Your task to perform on an android device: turn off priority inbox in the gmail app Image 0: 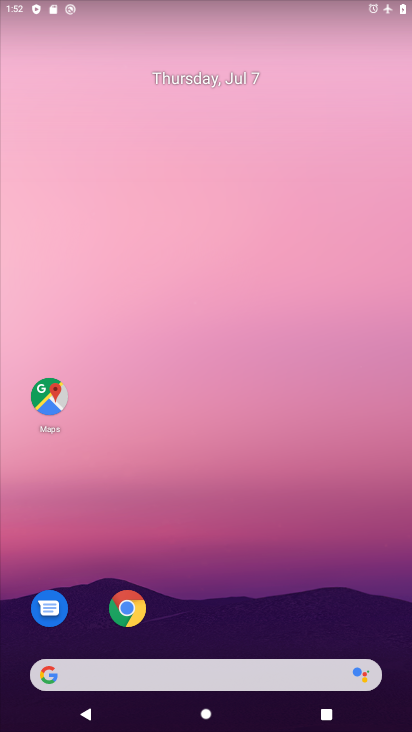
Step 0: click (248, 727)
Your task to perform on an android device: turn off priority inbox in the gmail app Image 1: 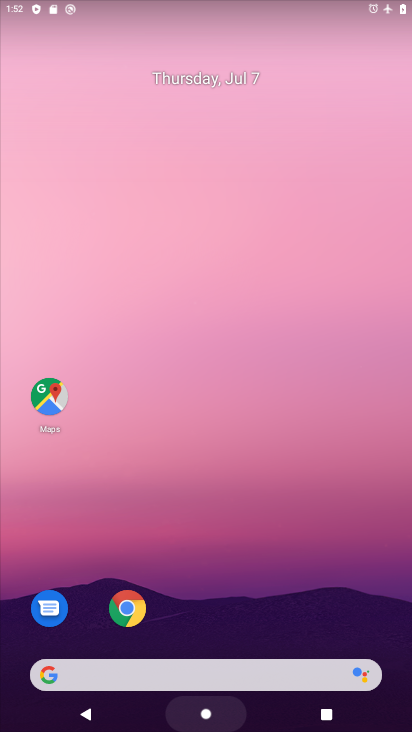
Step 1: drag from (241, 40) to (242, 2)
Your task to perform on an android device: turn off priority inbox in the gmail app Image 2: 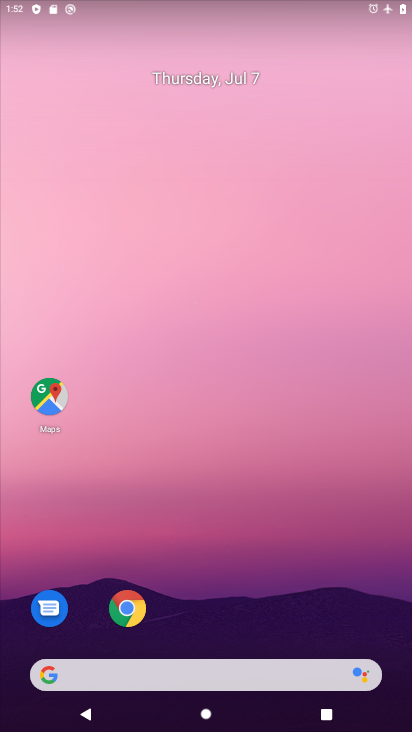
Step 2: drag from (282, 707) to (272, 630)
Your task to perform on an android device: turn off priority inbox in the gmail app Image 3: 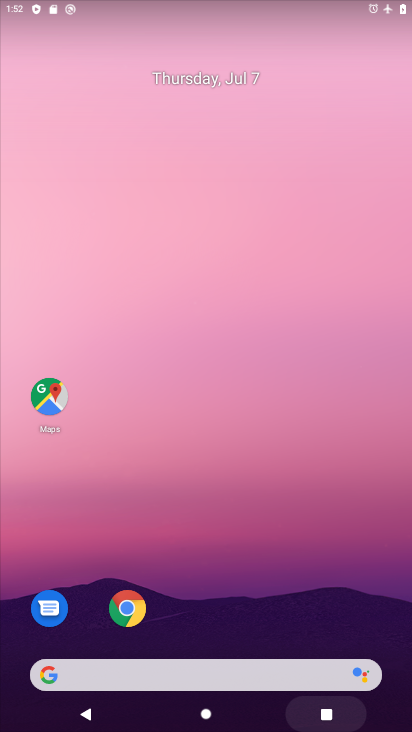
Step 3: click (238, 149)
Your task to perform on an android device: turn off priority inbox in the gmail app Image 4: 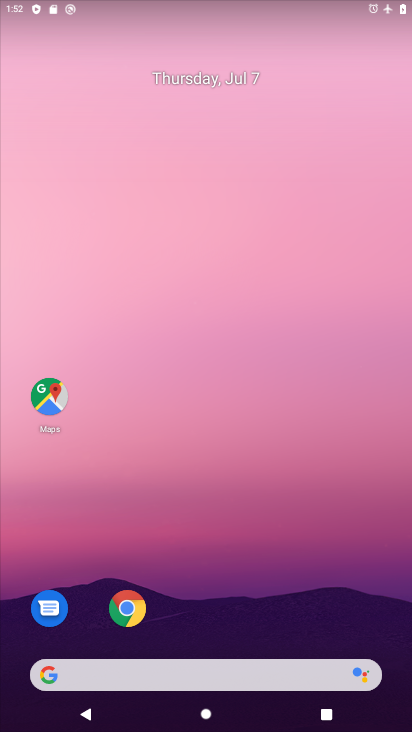
Step 4: click (262, 715)
Your task to perform on an android device: turn off priority inbox in the gmail app Image 5: 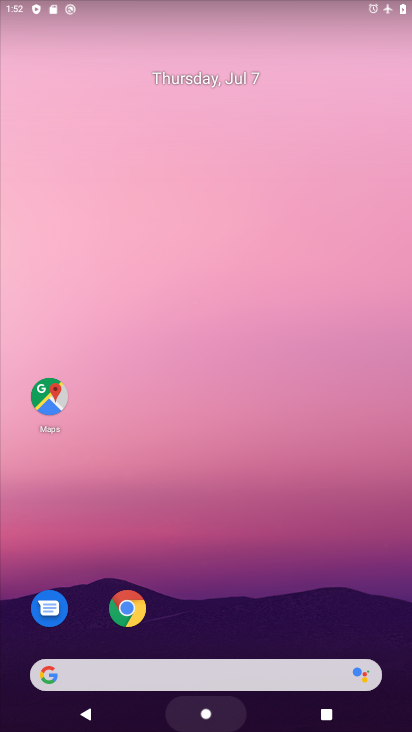
Step 5: drag from (232, 66) to (232, 32)
Your task to perform on an android device: turn off priority inbox in the gmail app Image 6: 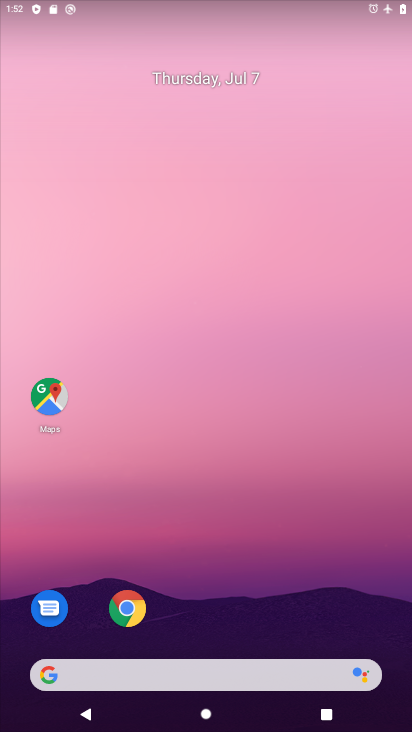
Step 6: drag from (263, 651) to (232, 44)
Your task to perform on an android device: turn off priority inbox in the gmail app Image 7: 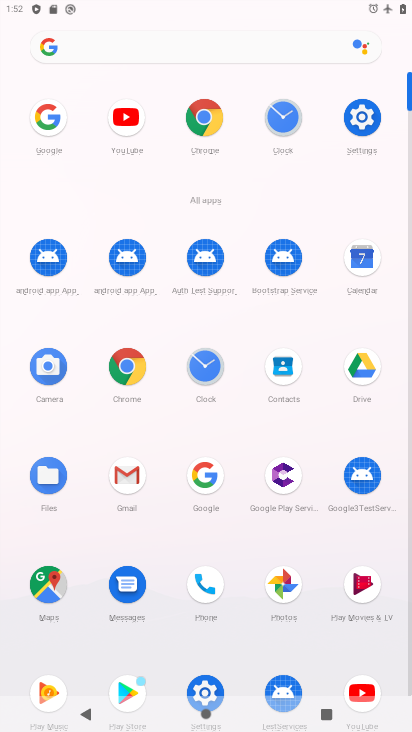
Step 7: click (129, 473)
Your task to perform on an android device: turn off priority inbox in the gmail app Image 8: 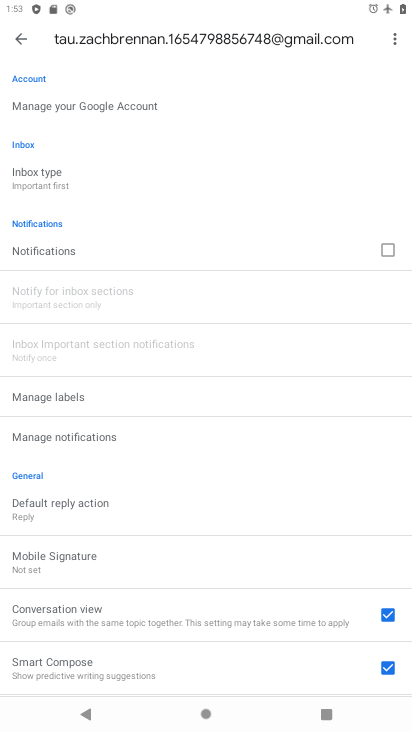
Step 8: click (46, 177)
Your task to perform on an android device: turn off priority inbox in the gmail app Image 9: 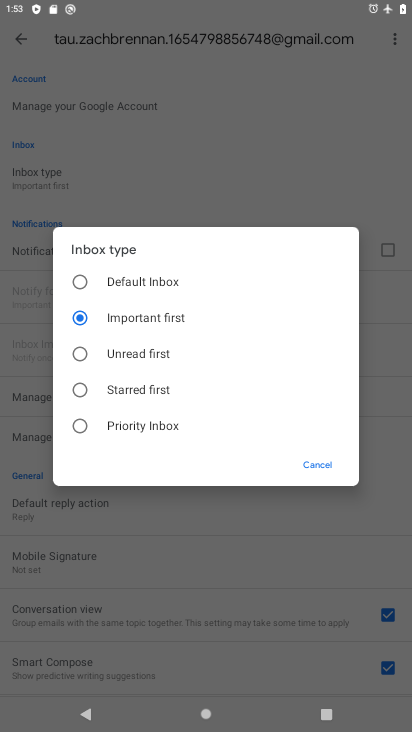
Step 9: task complete